Your task to perform on an android device: Open eBay Image 0: 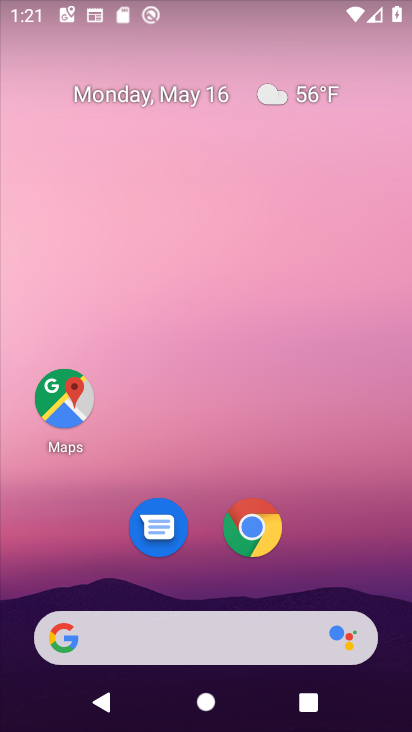
Step 0: click (252, 528)
Your task to perform on an android device: Open eBay Image 1: 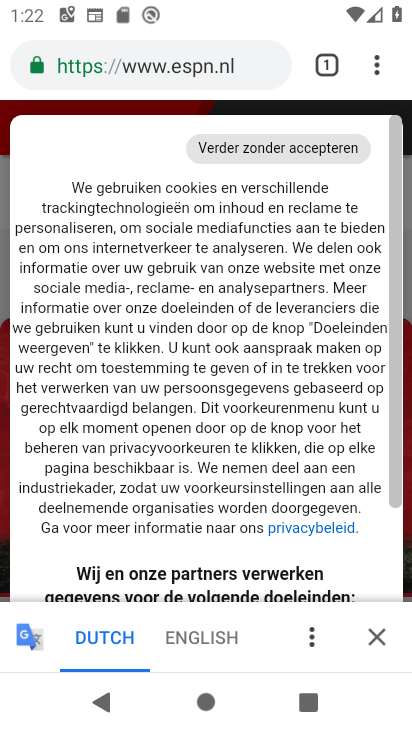
Step 1: click (123, 50)
Your task to perform on an android device: Open eBay Image 2: 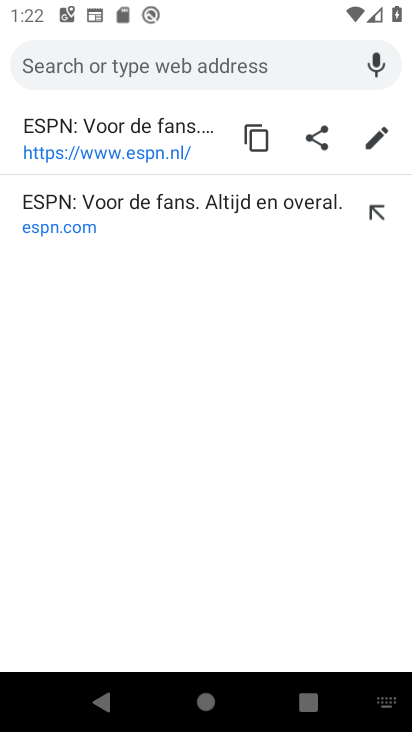
Step 2: type "ebay"
Your task to perform on an android device: Open eBay Image 3: 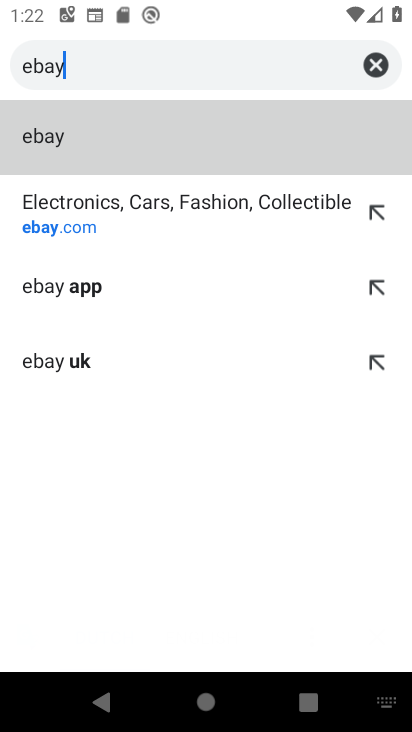
Step 3: click (121, 227)
Your task to perform on an android device: Open eBay Image 4: 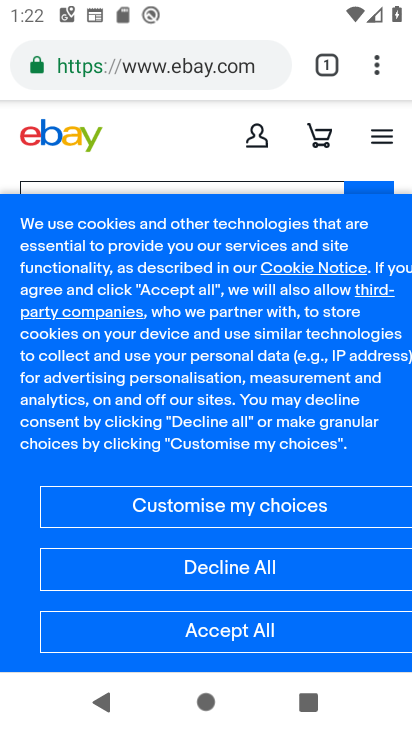
Step 4: task complete